Your task to perform on an android device: toggle javascript in the chrome app Image 0: 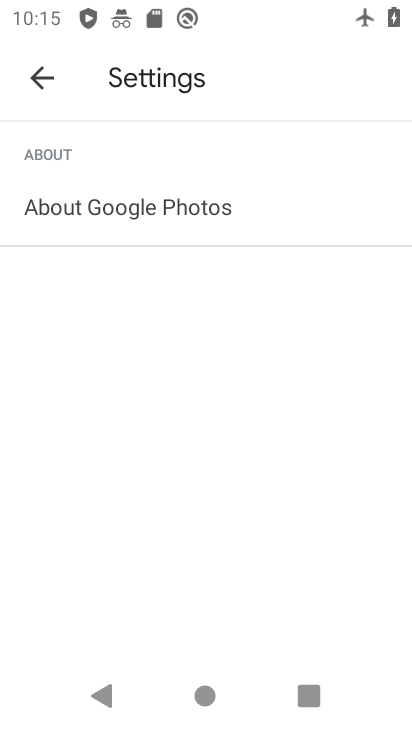
Step 0: press home button
Your task to perform on an android device: toggle javascript in the chrome app Image 1: 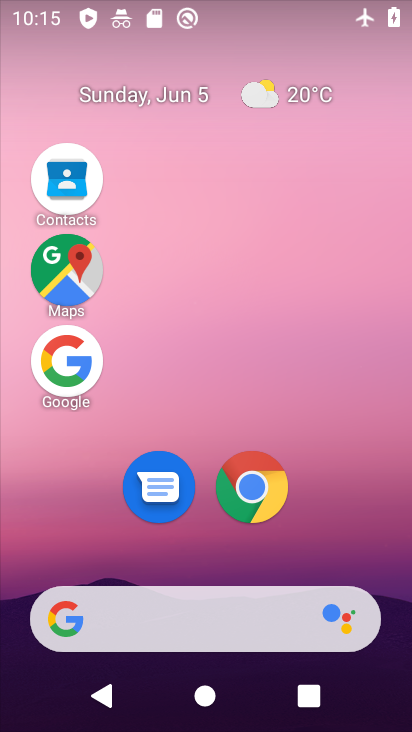
Step 1: drag from (173, 539) to (240, 35)
Your task to perform on an android device: toggle javascript in the chrome app Image 2: 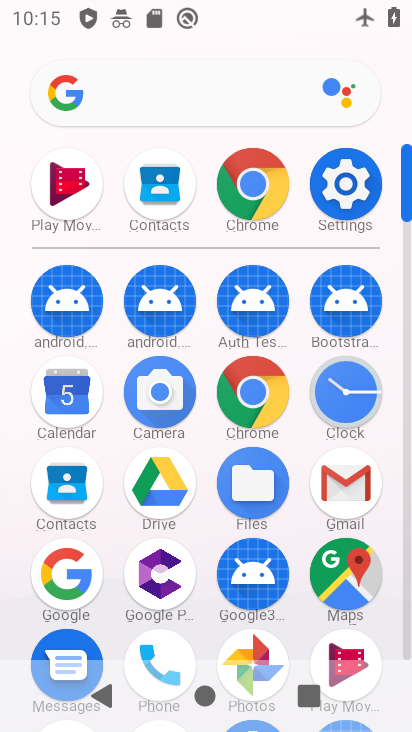
Step 2: click (257, 419)
Your task to perform on an android device: toggle javascript in the chrome app Image 3: 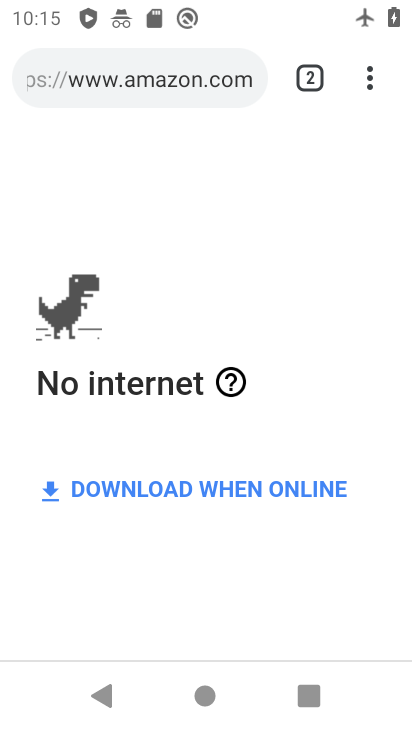
Step 3: click (380, 90)
Your task to perform on an android device: toggle javascript in the chrome app Image 4: 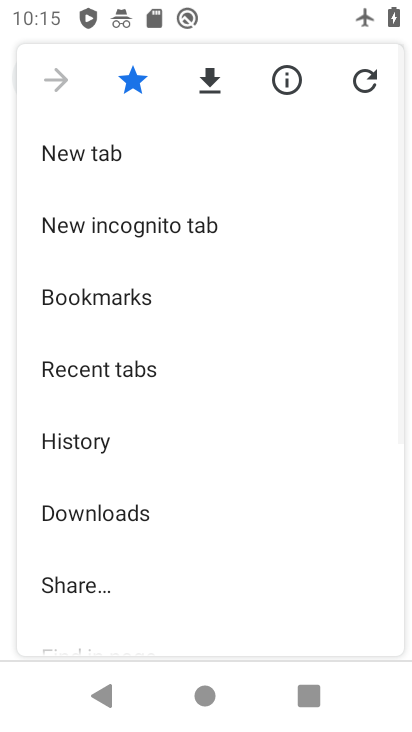
Step 4: drag from (187, 416) to (264, 109)
Your task to perform on an android device: toggle javascript in the chrome app Image 5: 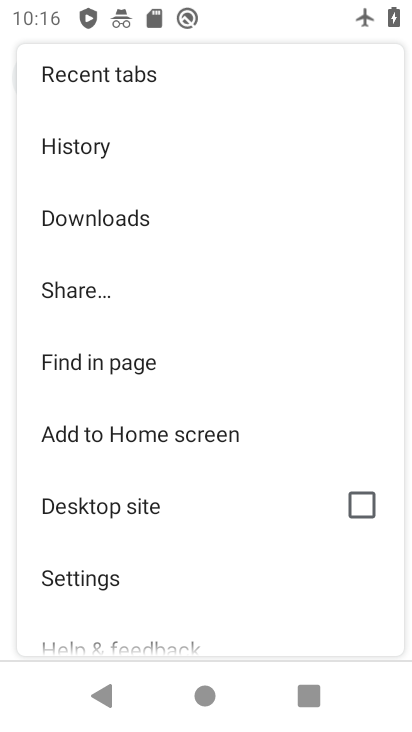
Step 5: click (100, 584)
Your task to perform on an android device: toggle javascript in the chrome app Image 6: 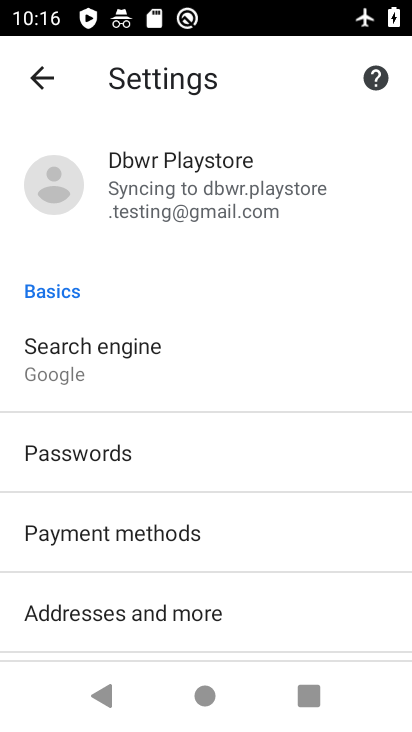
Step 6: drag from (131, 556) to (185, 157)
Your task to perform on an android device: toggle javascript in the chrome app Image 7: 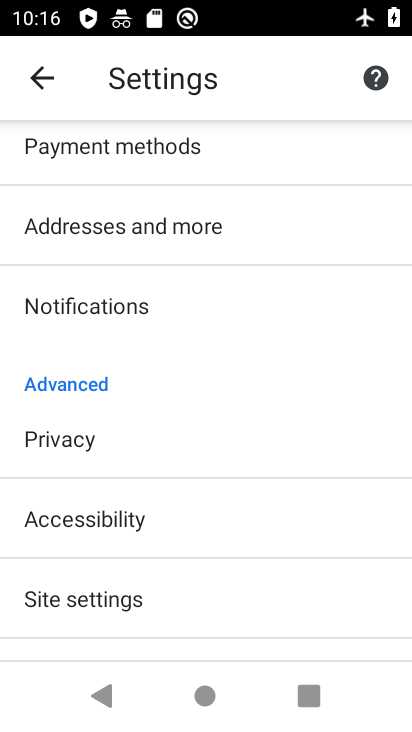
Step 7: click (137, 606)
Your task to perform on an android device: toggle javascript in the chrome app Image 8: 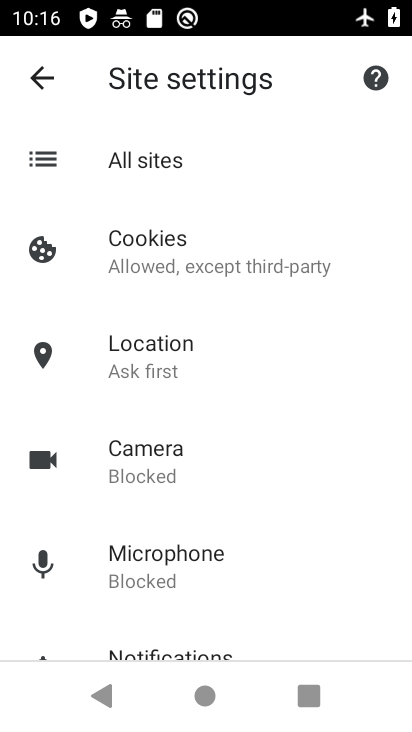
Step 8: drag from (166, 566) to (192, 209)
Your task to perform on an android device: toggle javascript in the chrome app Image 9: 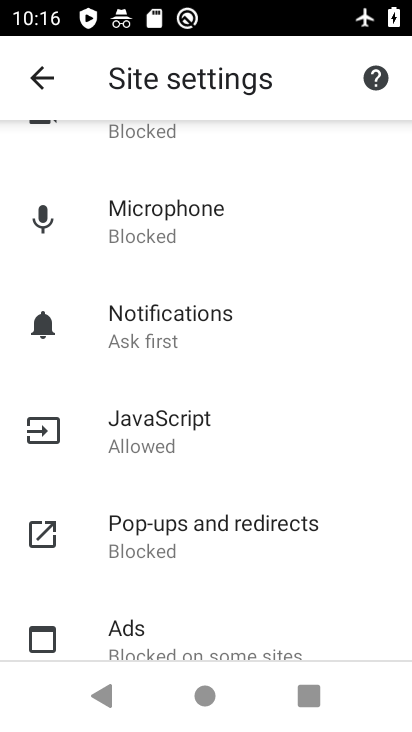
Step 9: click (187, 456)
Your task to perform on an android device: toggle javascript in the chrome app Image 10: 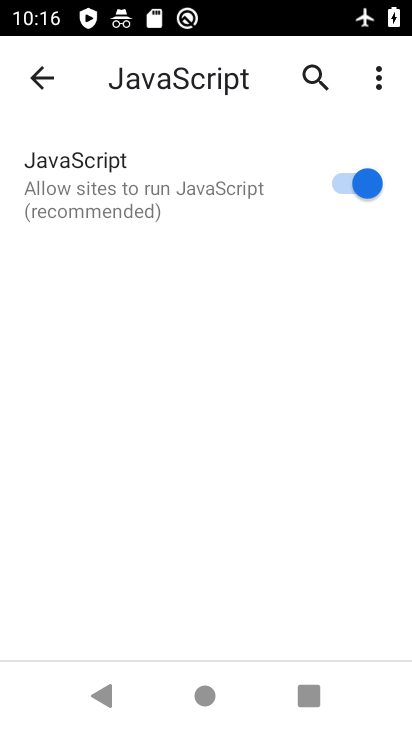
Step 10: click (348, 179)
Your task to perform on an android device: toggle javascript in the chrome app Image 11: 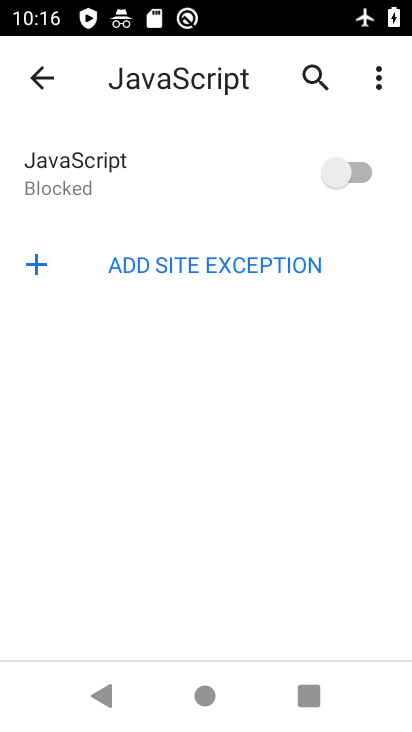
Step 11: task complete